Your task to perform on an android device: check android version Image 0: 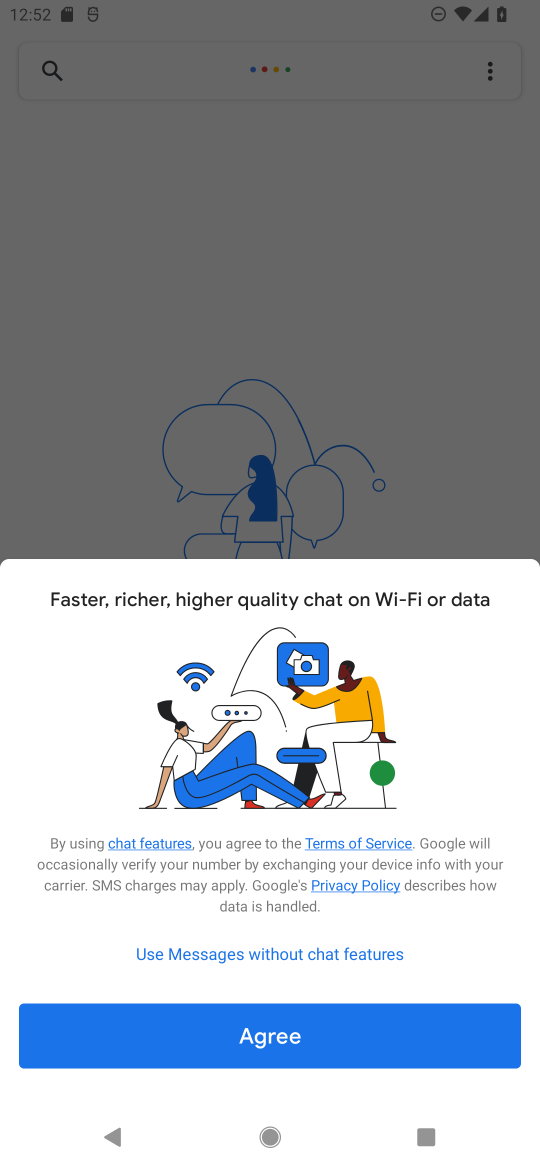
Step 0: press home button
Your task to perform on an android device: check android version Image 1: 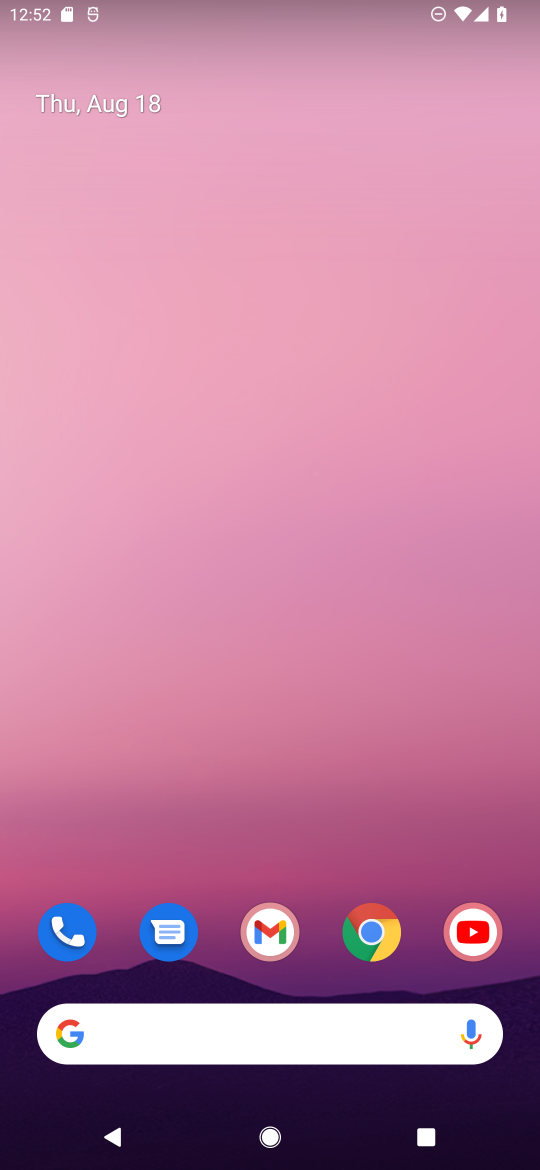
Step 1: drag from (320, 817) to (310, 231)
Your task to perform on an android device: check android version Image 2: 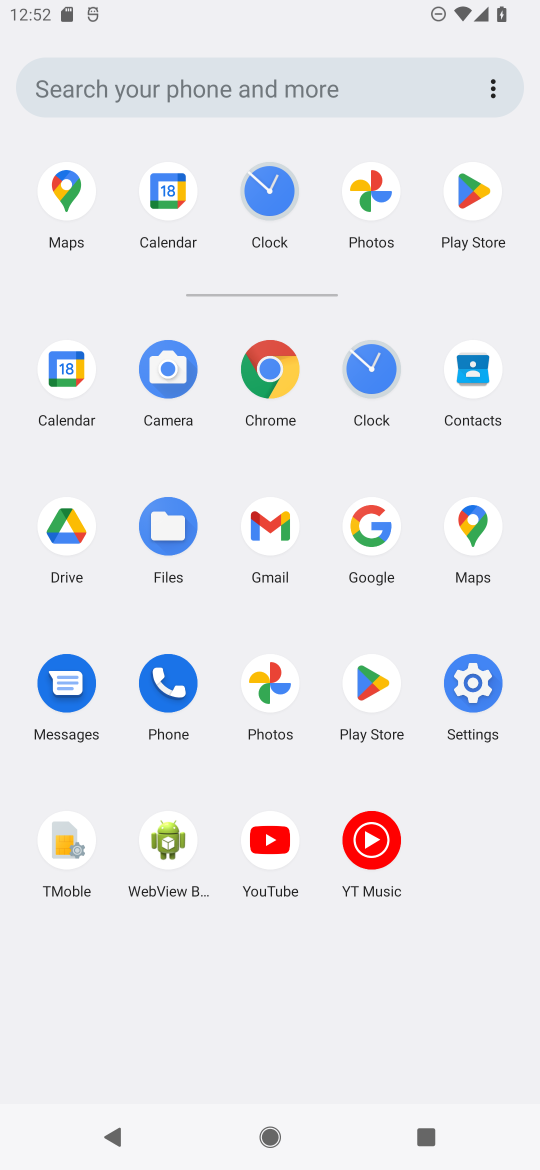
Step 2: click (483, 691)
Your task to perform on an android device: check android version Image 3: 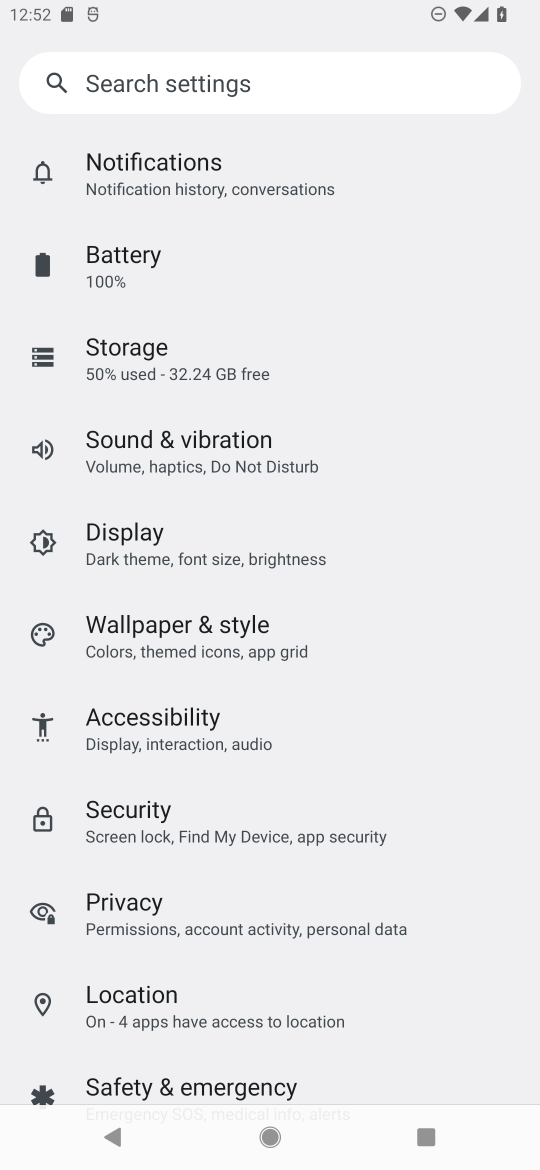
Step 3: drag from (246, 952) to (241, 532)
Your task to perform on an android device: check android version Image 4: 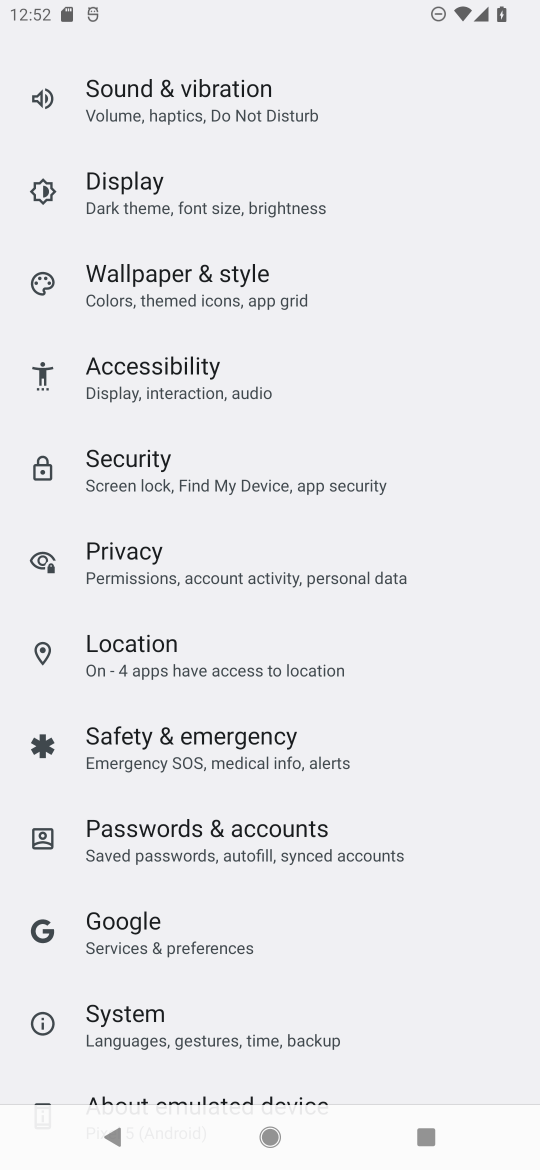
Step 4: drag from (247, 892) to (195, 439)
Your task to perform on an android device: check android version Image 5: 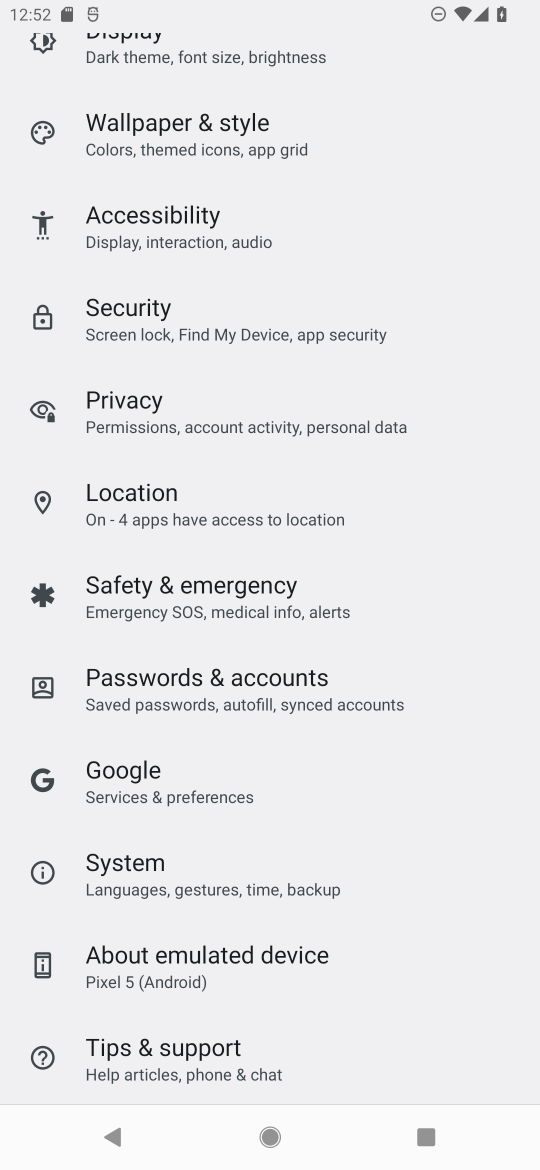
Step 5: click (202, 956)
Your task to perform on an android device: check android version Image 6: 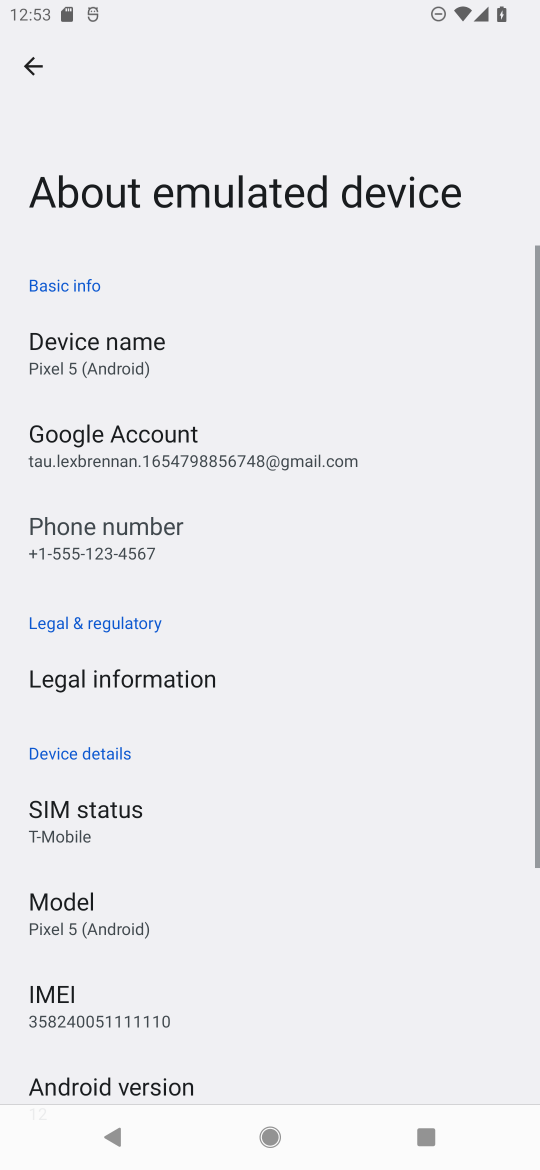
Step 6: task complete